Your task to perform on an android device: Show me popular videos on Youtube Image 0: 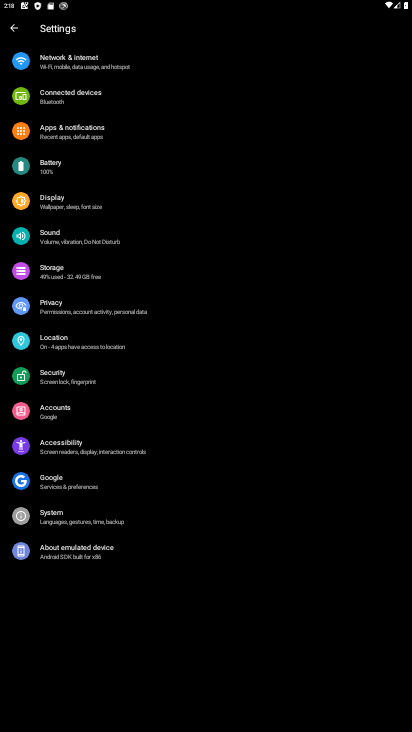
Step 0: press home button
Your task to perform on an android device: Show me popular videos on Youtube Image 1: 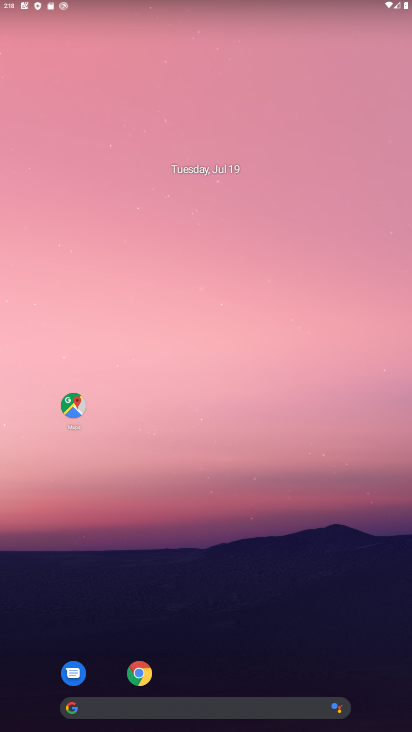
Step 1: drag from (205, 706) to (237, 202)
Your task to perform on an android device: Show me popular videos on Youtube Image 2: 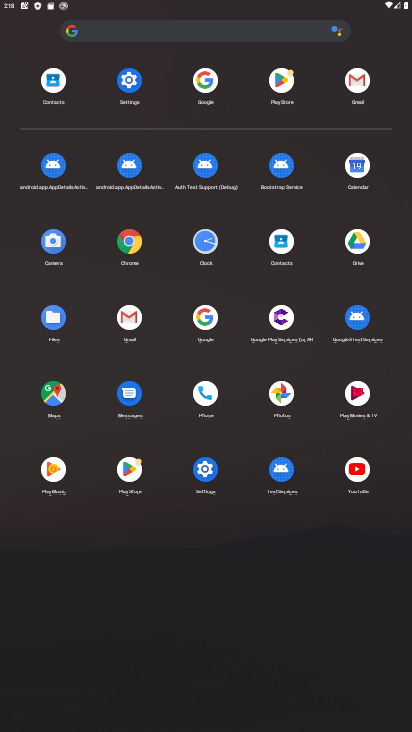
Step 2: click (357, 468)
Your task to perform on an android device: Show me popular videos on Youtube Image 3: 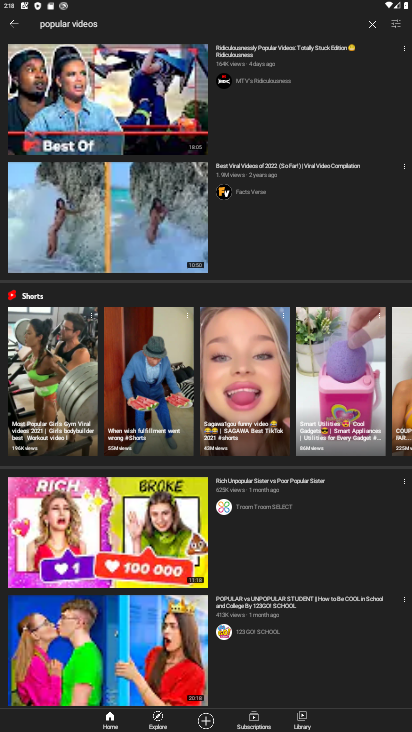
Step 3: task complete